Your task to perform on an android device: check storage Image 0: 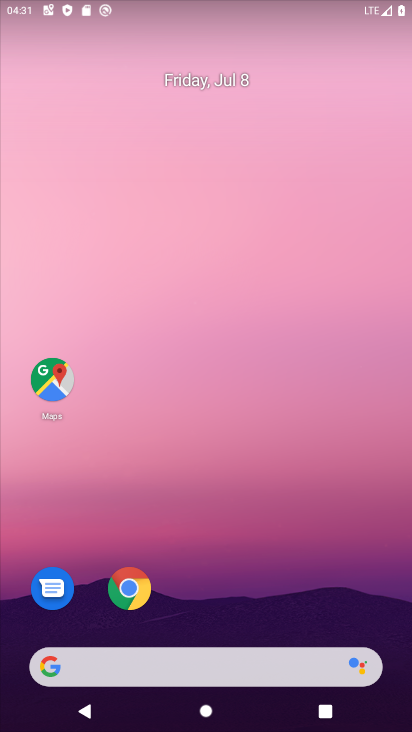
Step 0: drag from (201, 548) to (220, 55)
Your task to perform on an android device: check storage Image 1: 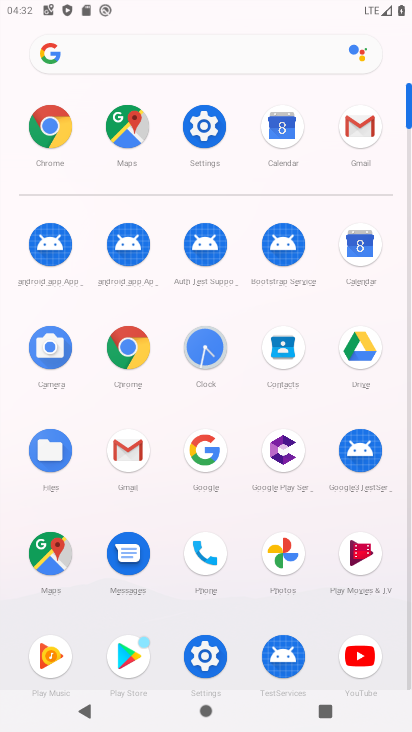
Step 1: click (210, 125)
Your task to perform on an android device: check storage Image 2: 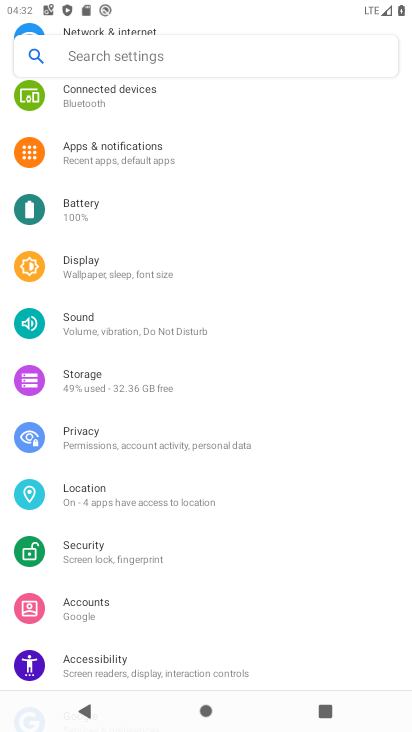
Step 2: click (98, 384)
Your task to perform on an android device: check storage Image 3: 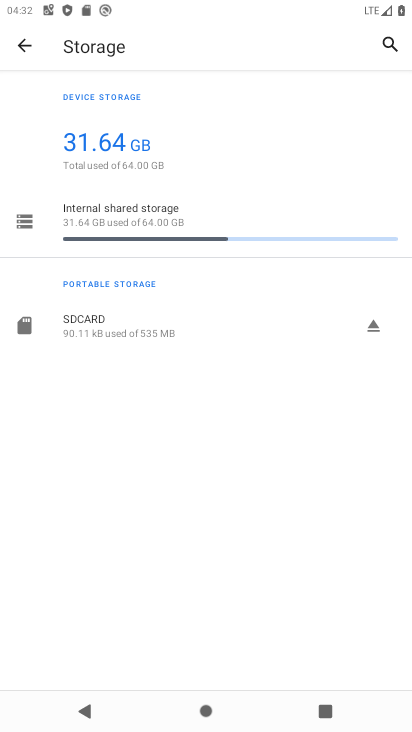
Step 3: task complete